Your task to perform on an android device: Open Reddit.com Image 0: 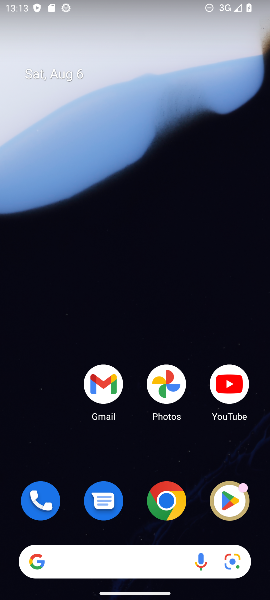
Step 0: click (166, 503)
Your task to perform on an android device: Open Reddit.com Image 1: 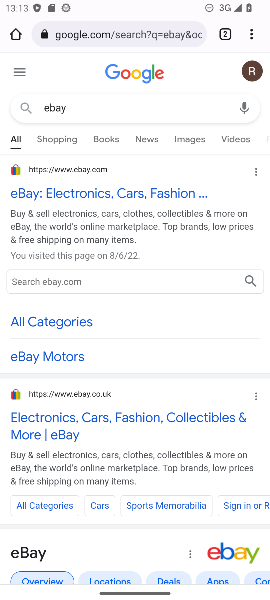
Step 1: click (86, 37)
Your task to perform on an android device: Open Reddit.com Image 2: 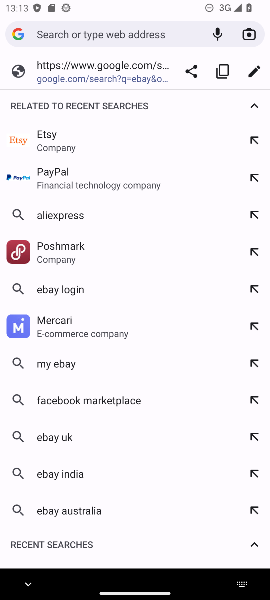
Step 2: type "www.reddit.com"
Your task to perform on an android device: Open Reddit.com Image 3: 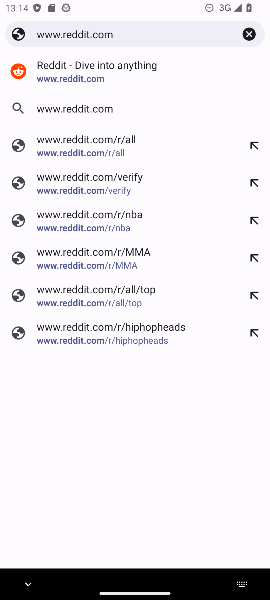
Step 3: click (98, 78)
Your task to perform on an android device: Open Reddit.com Image 4: 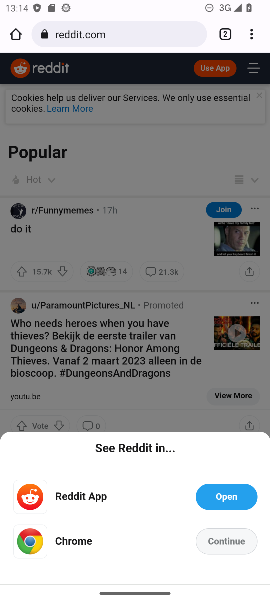
Step 4: task complete